Your task to perform on an android device: manage bookmarks in the chrome app Image 0: 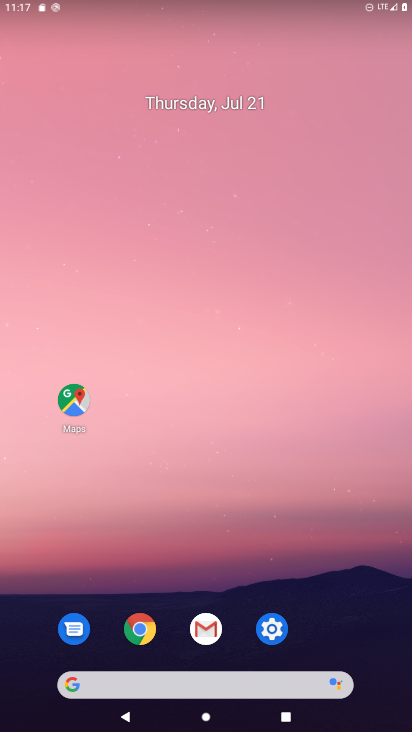
Step 0: click (139, 630)
Your task to perform on an android device: manage bookmarks in the chrome app Image 1: 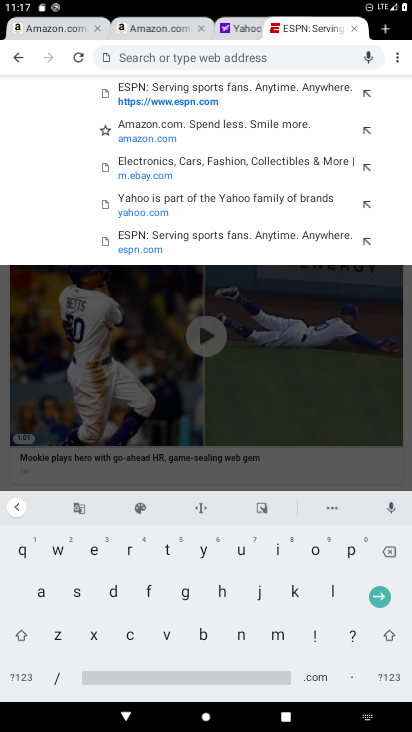
Step 1: click (395, 60)
Your task to perform on an android device: manage bookmarks in the chrome app Image 2: 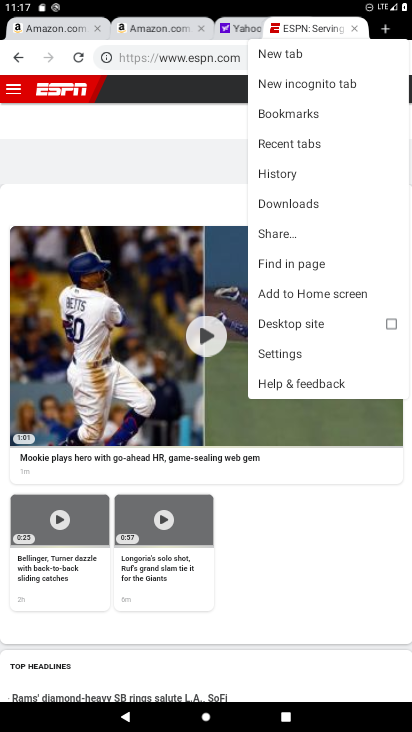
Step 2: click (299, 116)
Your task to perform on an android device: manage bookmarks in the chrome app Image 3: 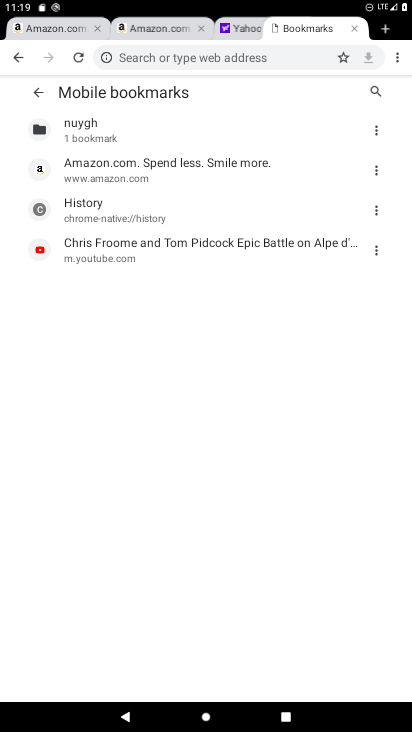
Step 3: task complete